Your task to perform on an android device: turn on priority inbox in the gmail app Image 0: 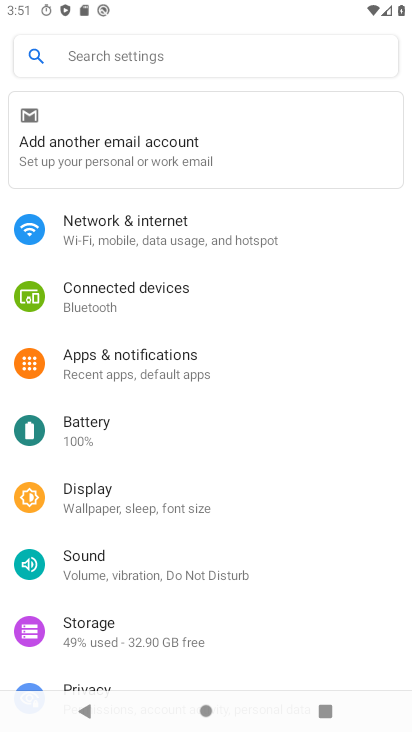
Step 0: press home button
Your task to perform on an android device: turn on priority inbox in the gmail app Image 1: 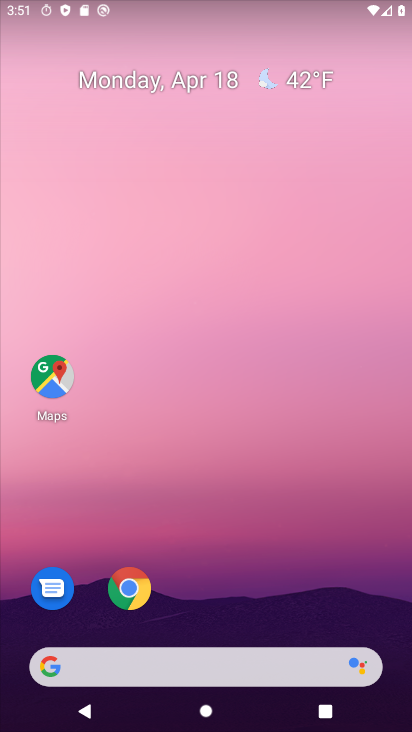
Step 1: drag from (182, 511) to (100, 13)
Your task to perform on an android device: turn on priority inbox in the gmail app Image 2: 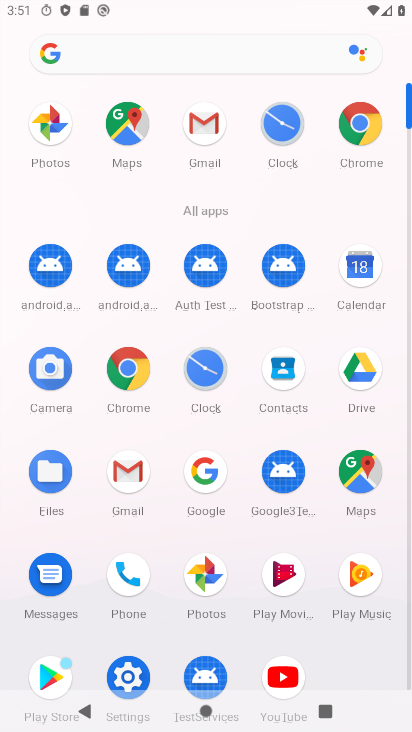
Step 2: click (202, 141)
Your task to perform on an android device: turn on priority inbox in the gmail app Image 3: 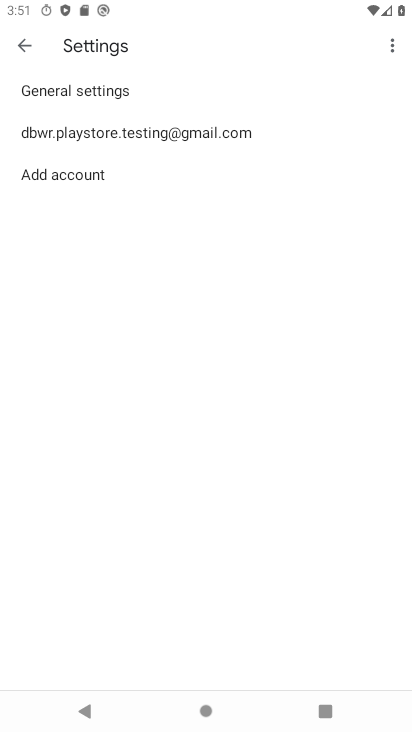
Step 3: click (131, 129)
Your task to perform on an android device: turn on priority inbox in the gmail app Image 4: 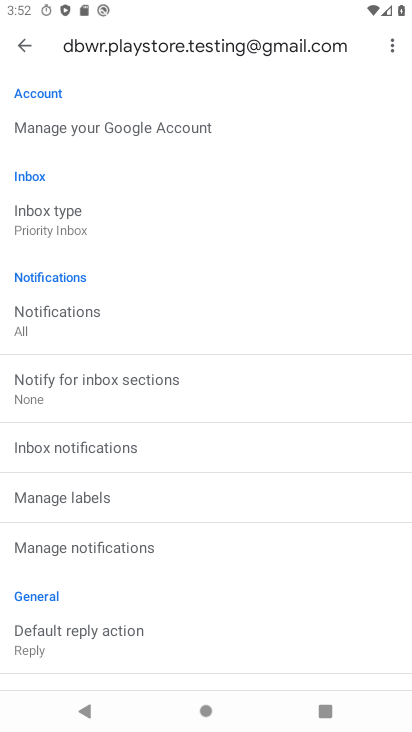
Step 4: click (79, 225)
Your task to perform on an android device: turn on priority inbox in the gmail app Image 5: 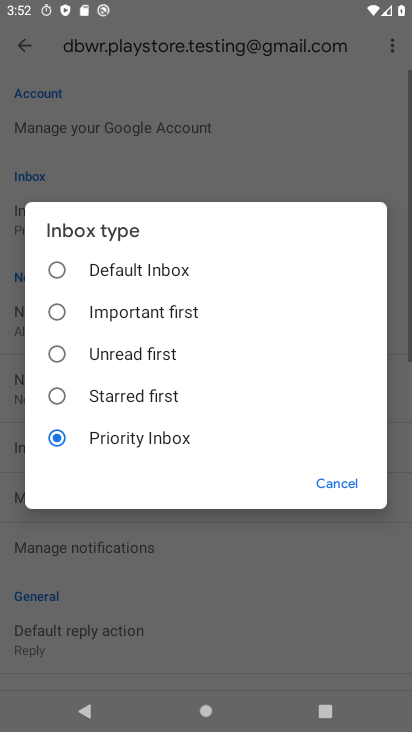
Step 5: task complete